Your task to perform on an android device: Go to Google Image 0: 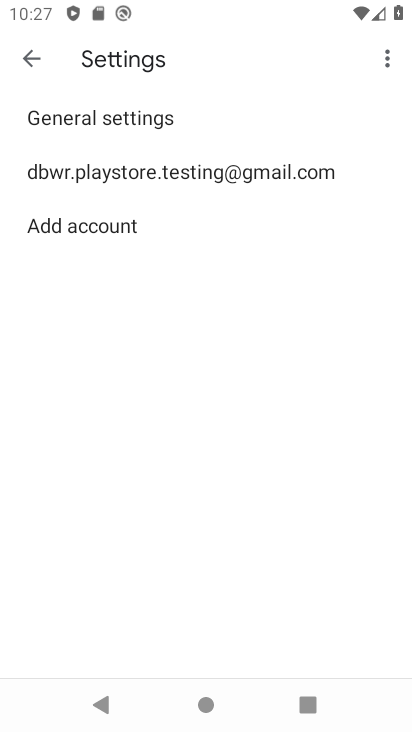
Step 0: press home button
Your task to perform on an android device: Go to Google Image 1: 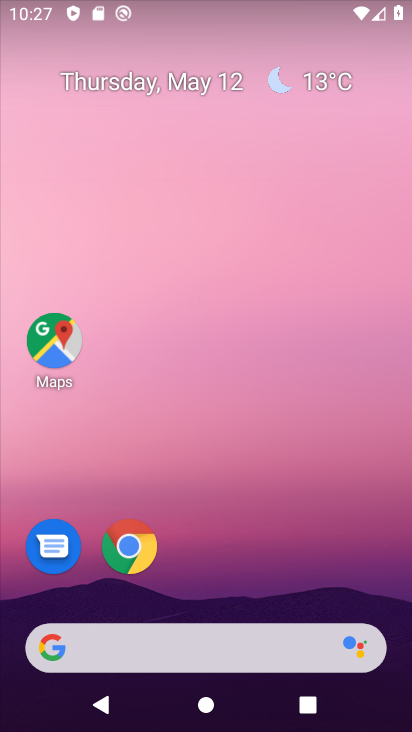
Step 1: drag from (248, 683) to (249, 278)
Your task to perform on an android device: Go to Google Image 2: 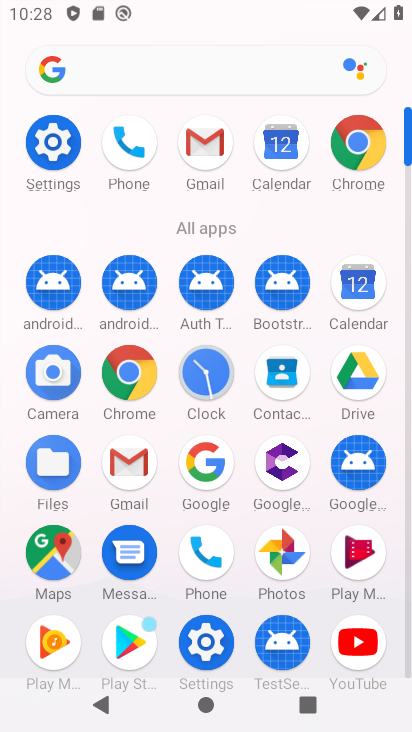
Step 2: click (49, 68)
Your task to perform on an android device: Go to Google Image 3: 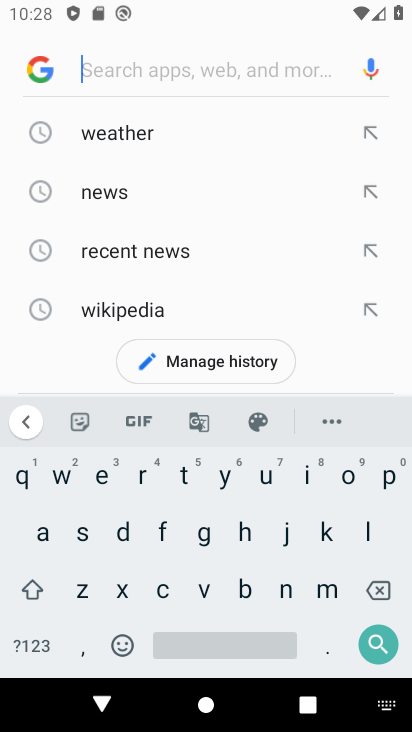
Step 3: click (49, 68)
Your task to perform on an android device: Go to Google Image 4: 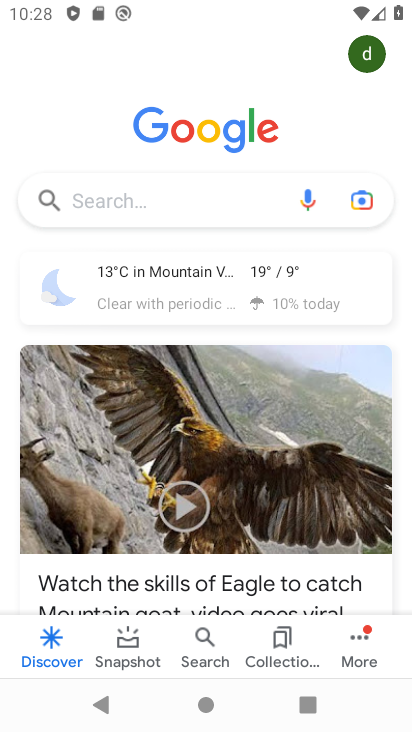
Step 4: task complete